Your task to perform on an android device: Search for Italian restaurants on Maps Image 0: 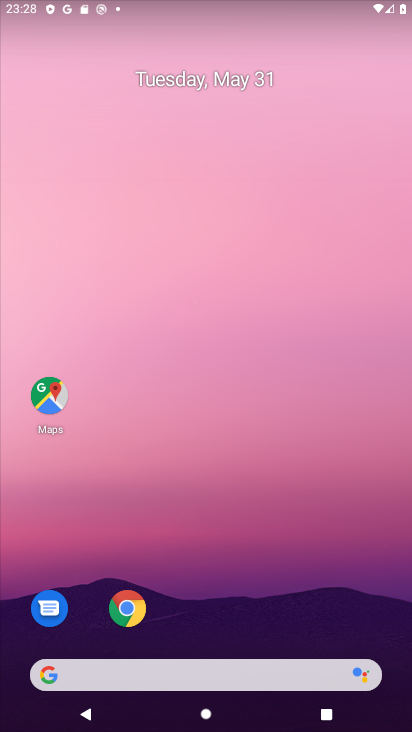
Step 0: click (57, 402)
Your task to perform on an android device: Search for Italian restaurants on Maps Image 1: 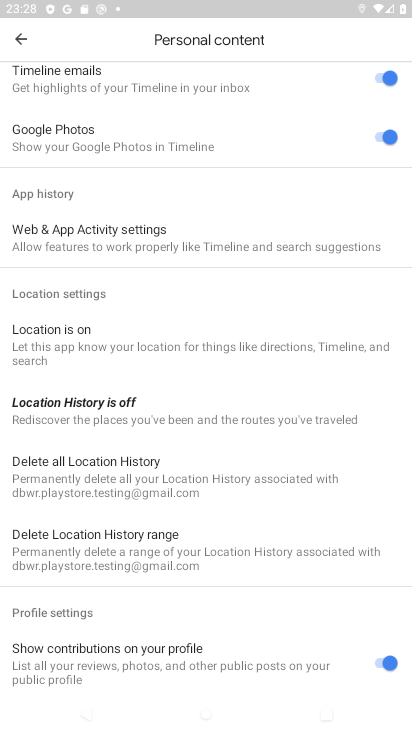
Step 1: click (20, 45)
Your task to perform on an android device: Search for Italian restaurants on Maps Image 2: 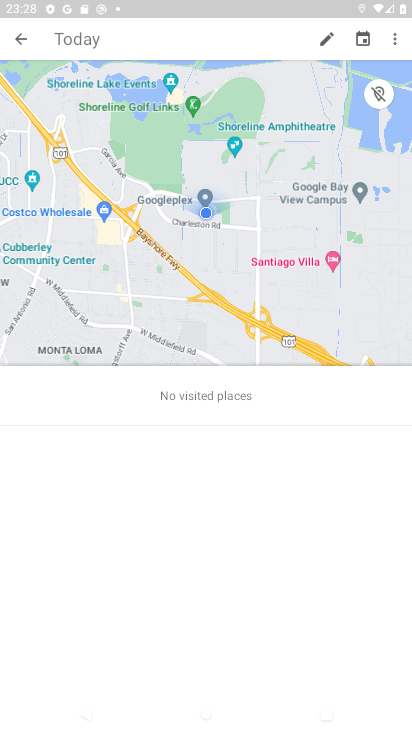
Step 2: click (26, 45)
Your task to perform on an android device: Search for Italian restaurants on Maps Image 3: 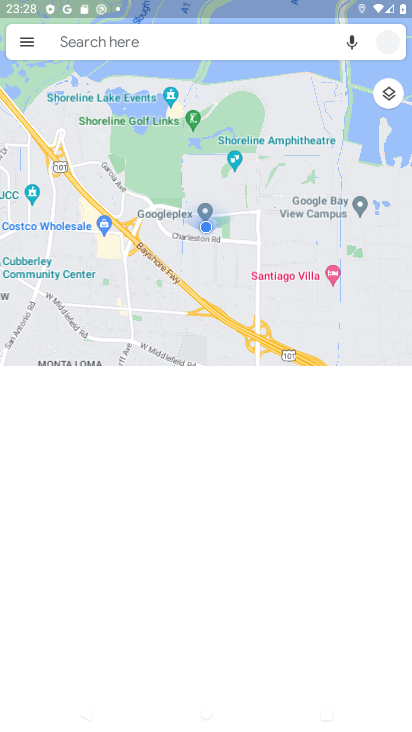
Step 3: click (160, 42)
Your task to perform on an android device: Search for Italian restaurants on Maps Image 4: 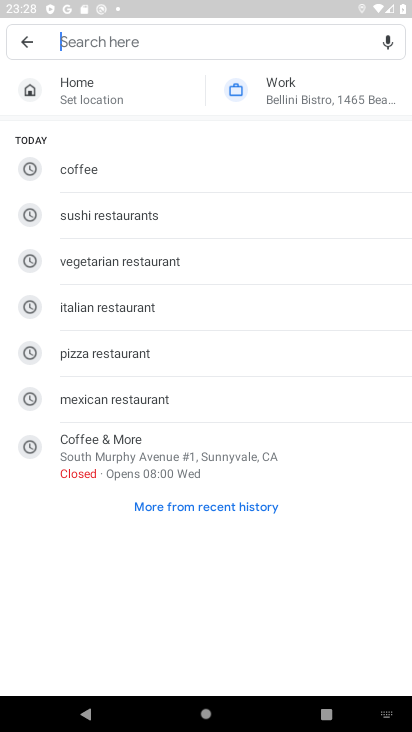
Step 4: type "What is the news today?"
Your task to perform on an android device: Search for Italian restaurants on Maps Image 5: 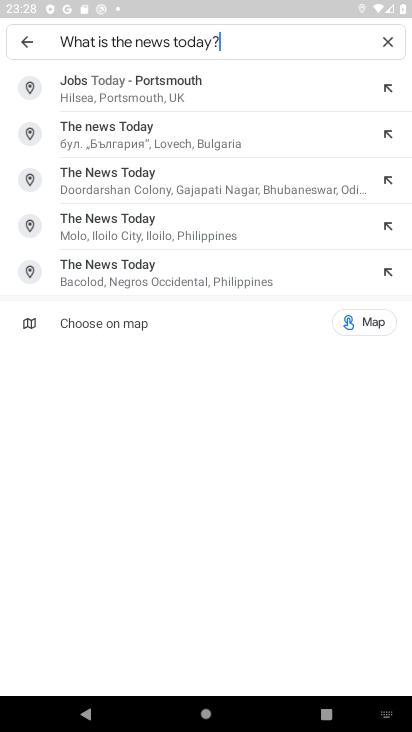
Step 5: click (166, 84)
Your task to perform on an android device: Search for Italian restaurants on Maps Image 6: 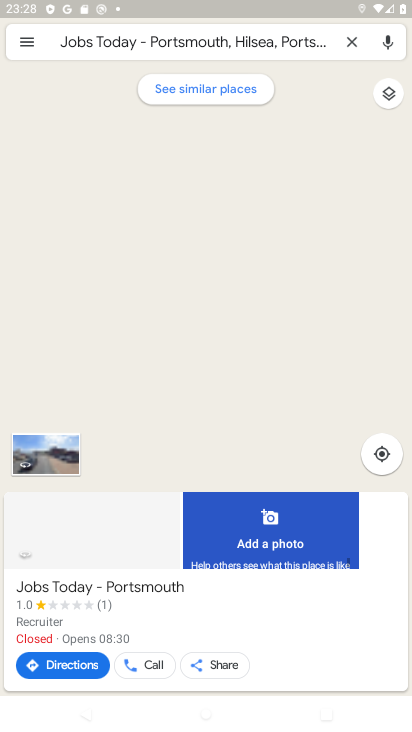
Step 6: click (353, 41)
Your task to perform on an android device: Search for Italian restaurants on Maps Image 7: 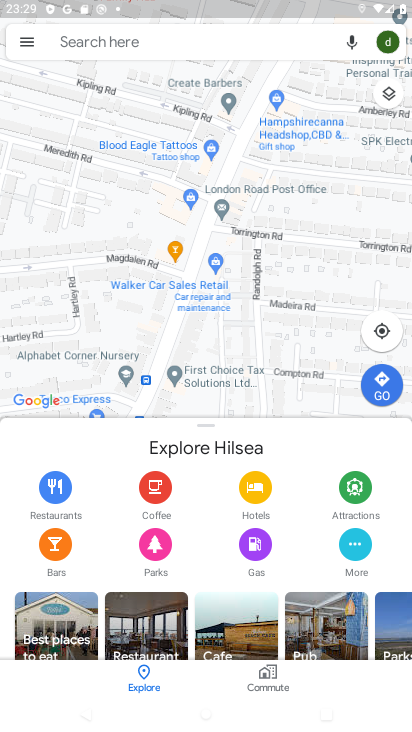
Step 7: click (215, 33)
Your task to perform on an android device: Search for Italian restaurants on Maps Image 8: 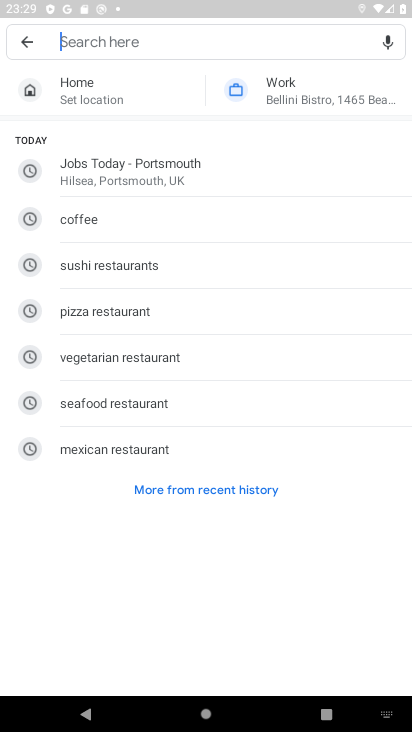
Step 8: click (123, 40)
Your task to perform on an android device: Search for Italian restaurants on Maps Image 9: 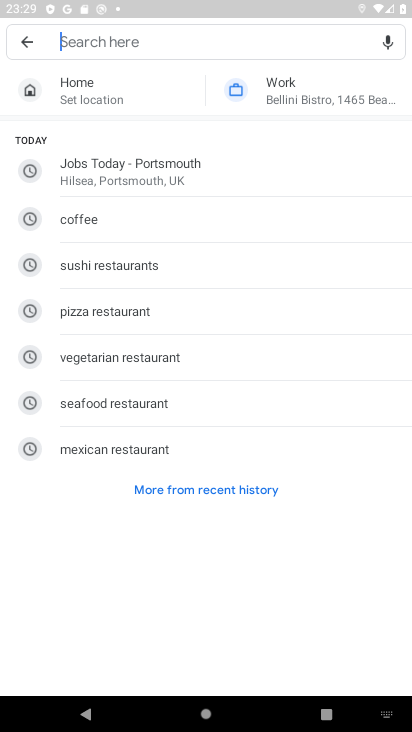
Step 9: type "Italian restaurants"
Your task to perform on an android device: Search for Italian restaurants on Maps Image 10: 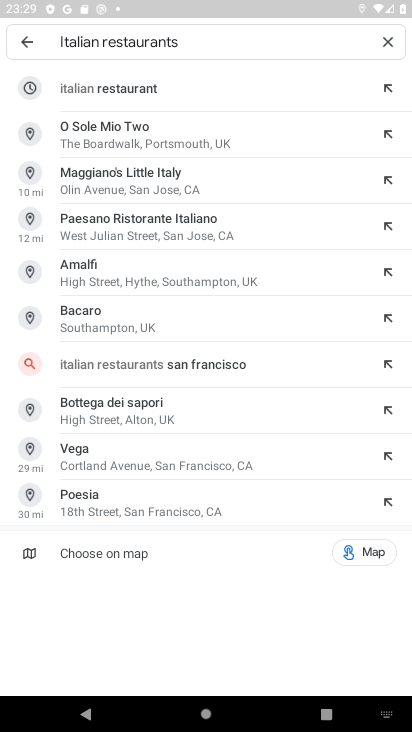
Step 10: click (349, 80)
Your task to perform on an android device: Search for Italian restaurants on Maps Image 11: 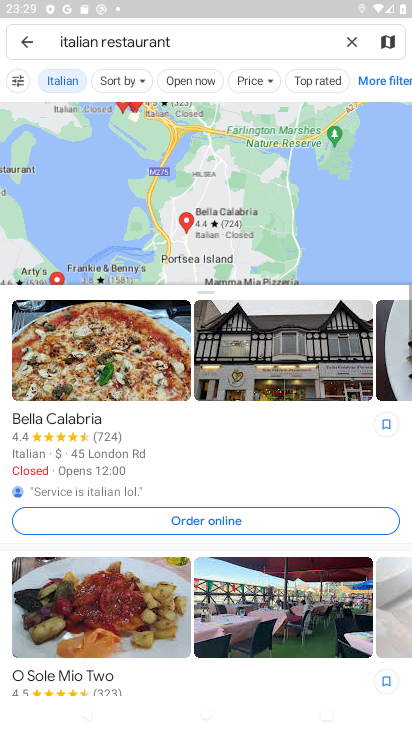
Step 11: task complete